Your task to perform on an android device: Search for vegetarian restaurants on Maps Image 0: 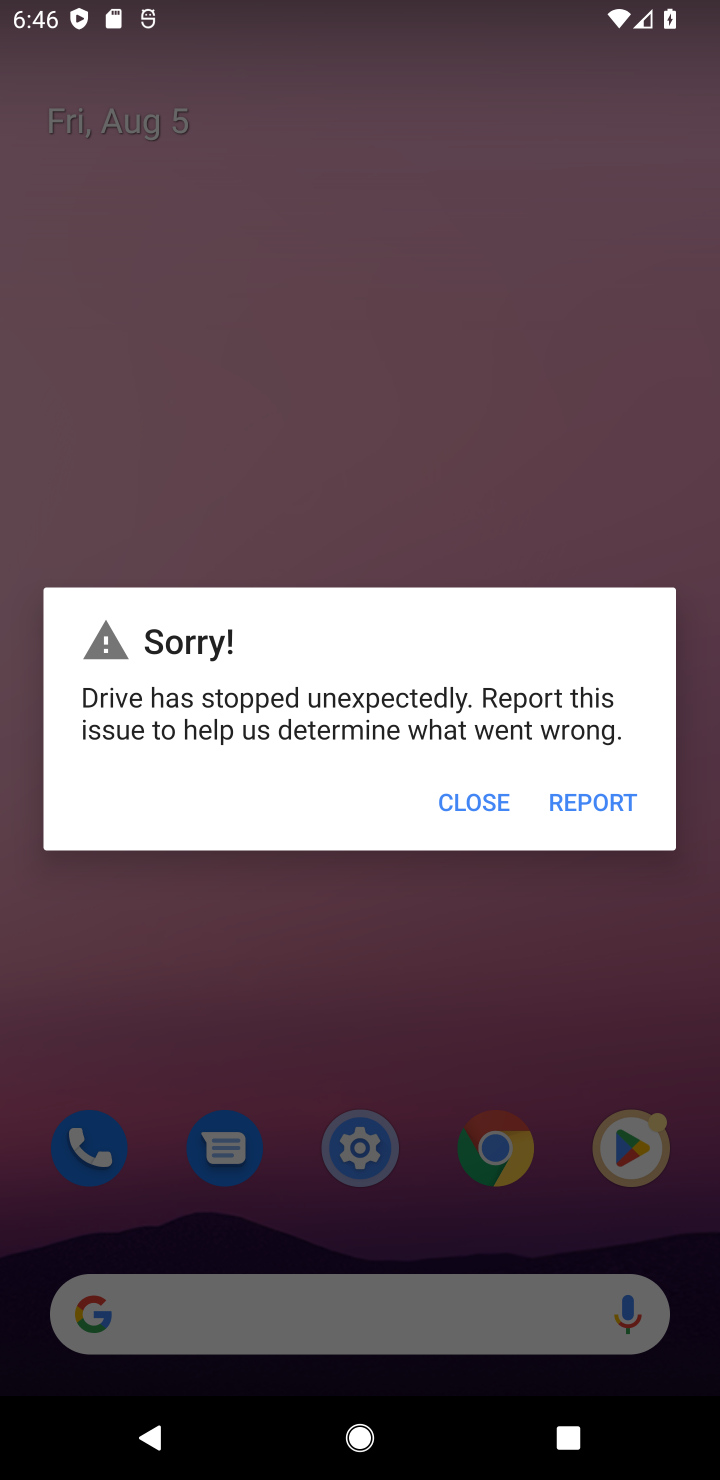
Step 0: click (476, 813)
Your task to perform on an android device: Search for vegetarian restaurants on Maps Image 1: 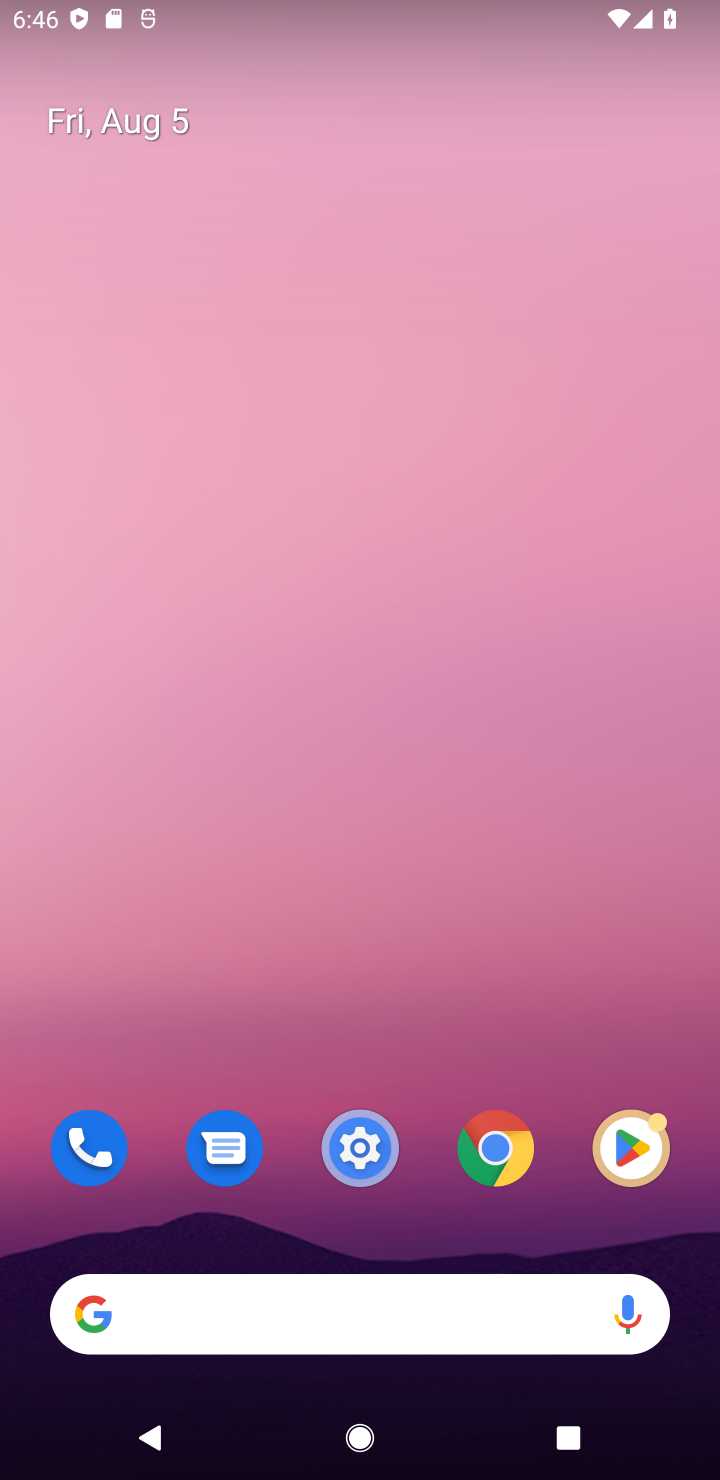
Step 1: drag from (398, 1234) to (448, 83)
Your task to perform on an android device: Search for vegetarian restaurants on Maps Image 2: 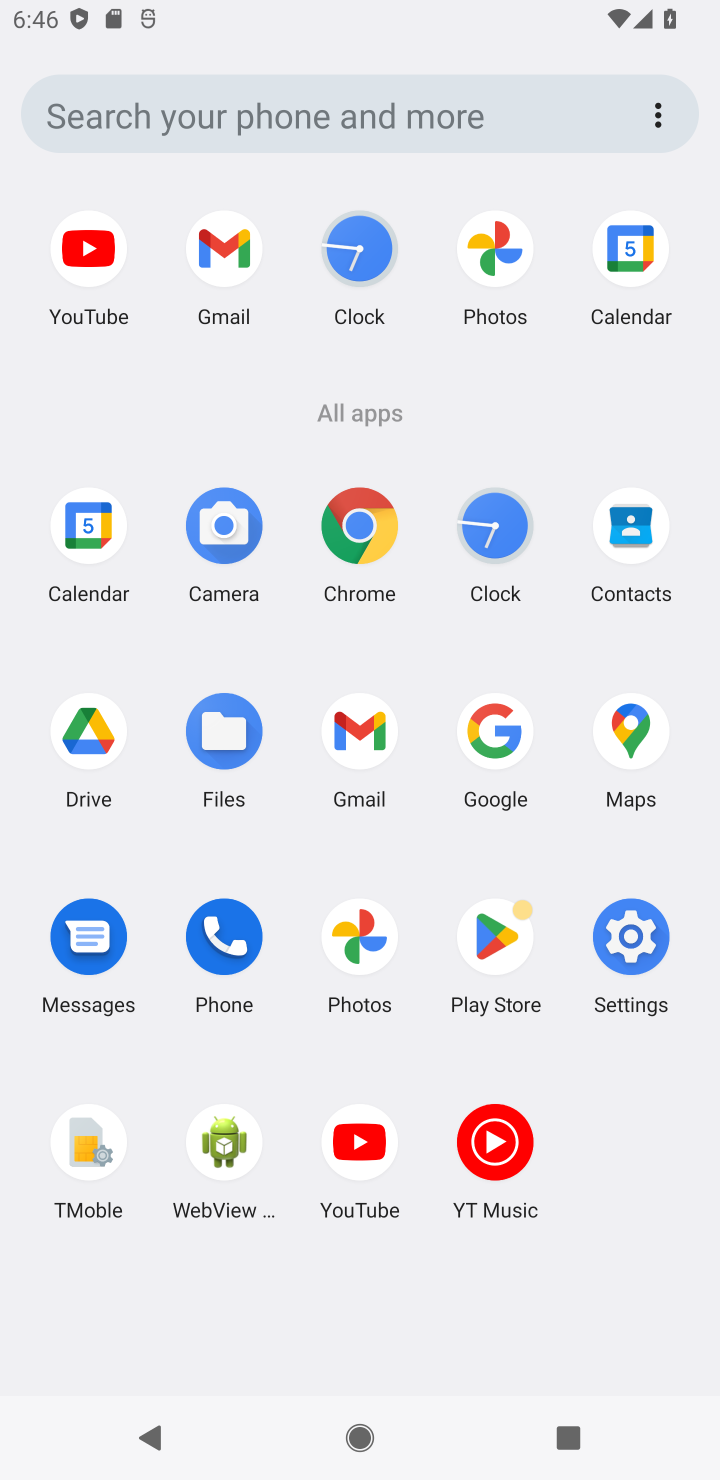
Step 2: click (623, 741)
Your task to perform on an android device: Search for vegetarian restaurants on Maps Image 3: 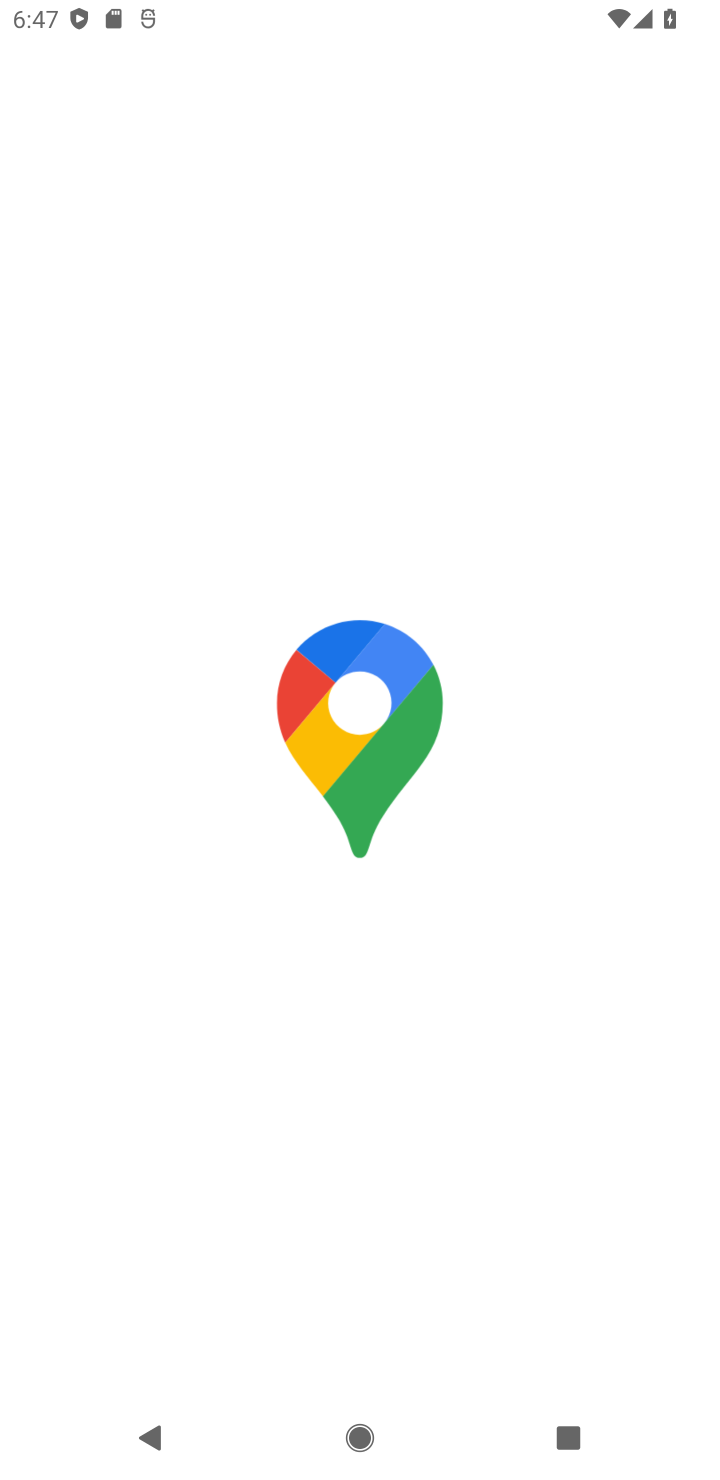
Step 3: task complete